Your task to perform on an android device: Check the news Image 0: 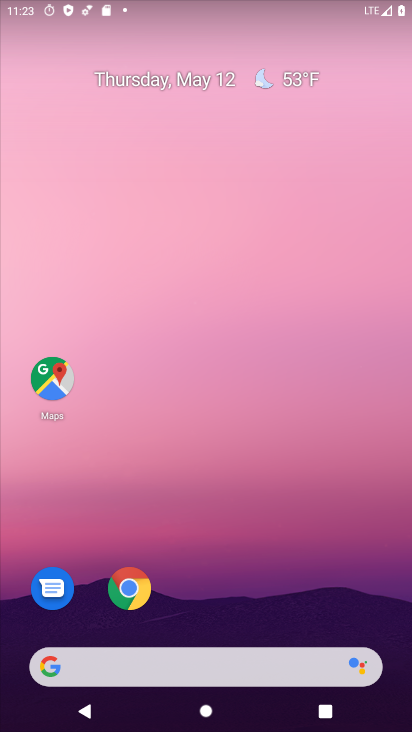
Step 0: drag from (263, 624) to (261, 109)
Your task to perform on an android device: Check the news Image 1: 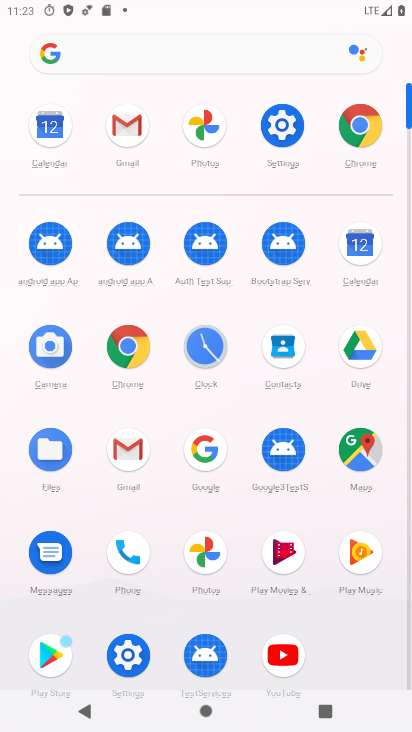
Step 1: click (372, 118)
Your task to perform on an android device: Check the news Image 2: 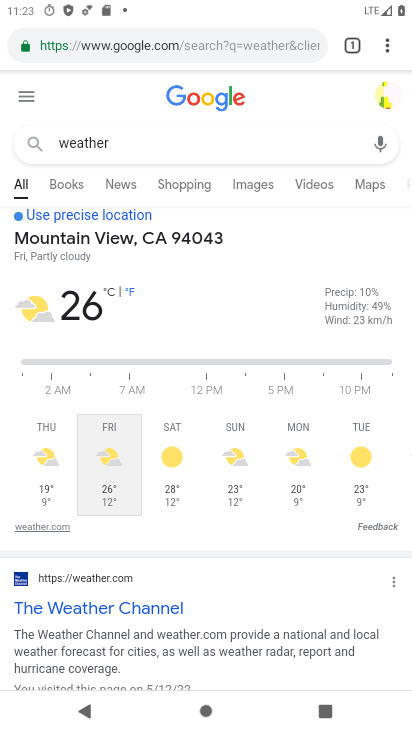
Step 2: click (327, 144)
Your task to perform on an android device: Check the news Image 3: 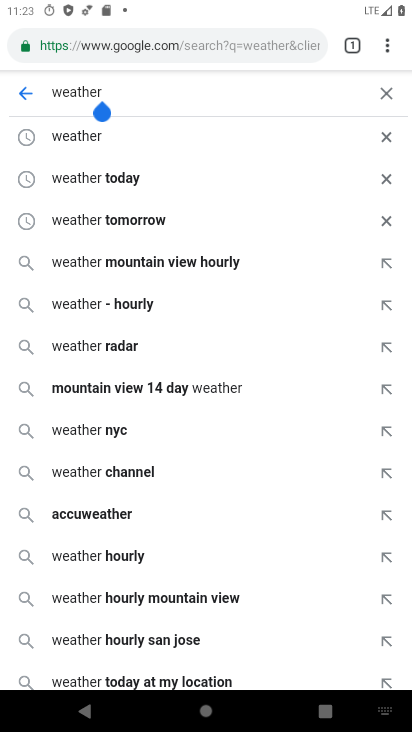
Step 3: click (383, 89)
Your task to perform on an android device: Check the news Image 4: 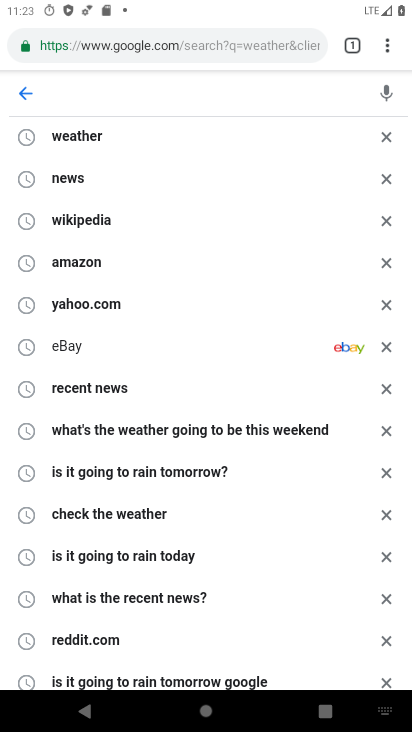
Step 4: type "news"
Your task to perform on an android device: Check the news Image 5: 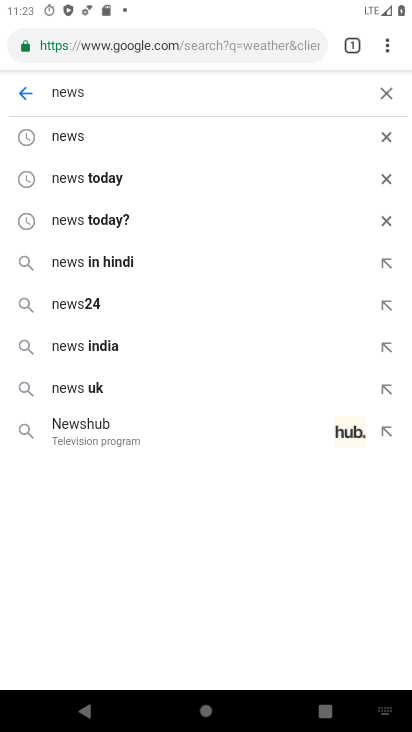
Step 5: click (76, 133)
Your task to perform on an android device: Check the news Image 6: 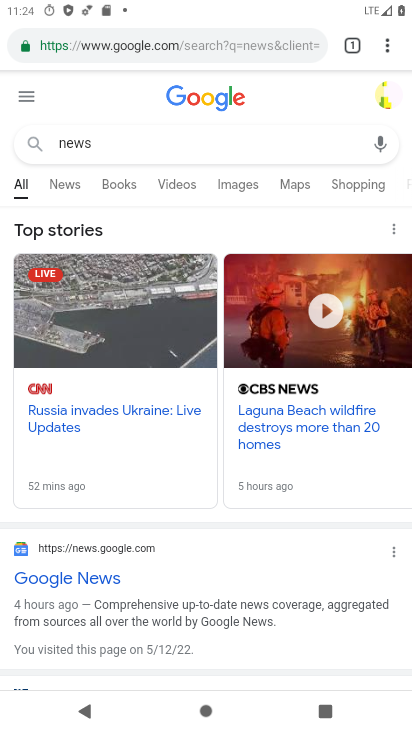
Step 6: click (59, 183)
Your task to perform on an android device: Check the news Image 7: 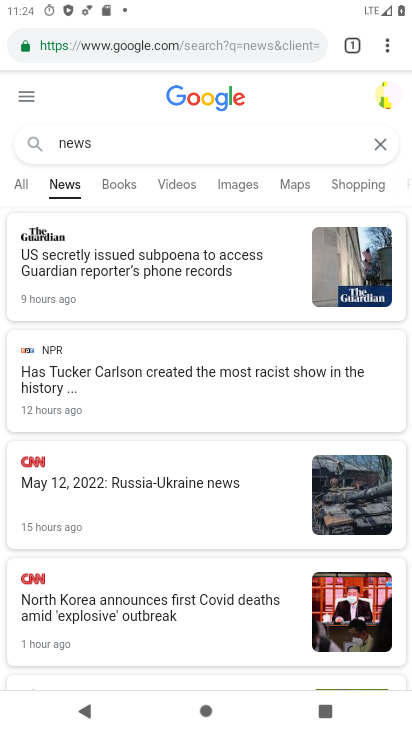
Step 7: task complete